Your task to perform on an android device: Go to Google maps Image 0: 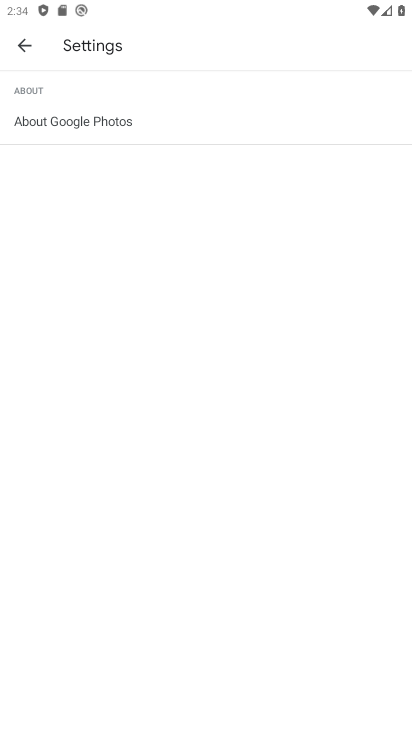
Step 0: press home button
Your task to perform on an android device: Go to Google maps Image 1: 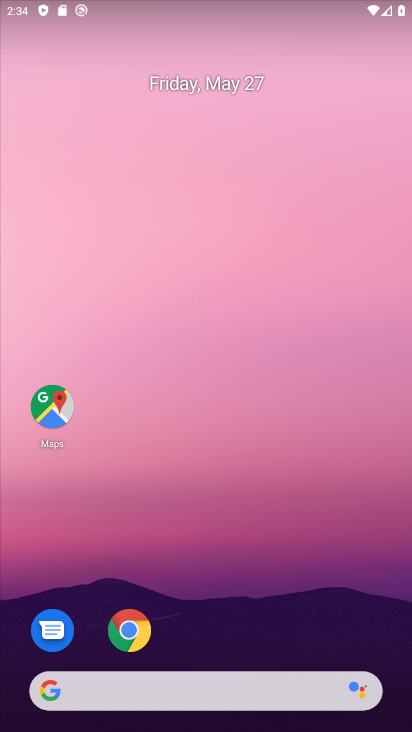
Step 1: click (53, 414)
Your task to perform on an android device: Go to Google maps Image 2: 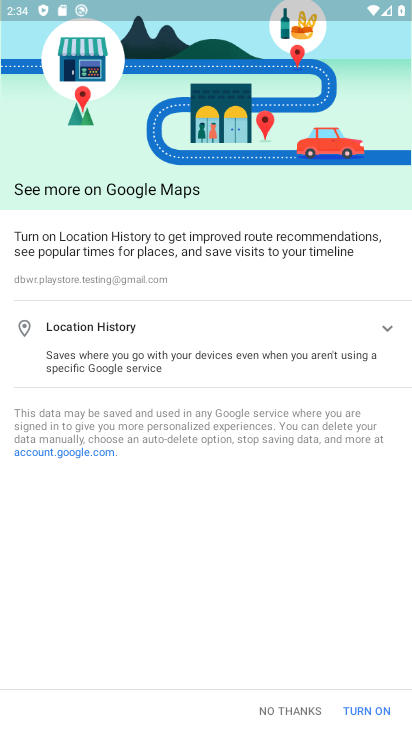
Step 2: press home button
Your task to perform on an android device: Go to Google maps Image 3: 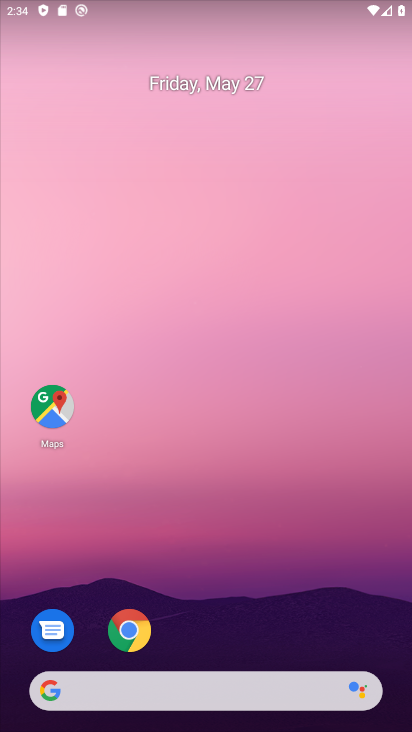
Step 3: click (42, 414)
Your task to perform on an android device: Go to Google maps Image 4: 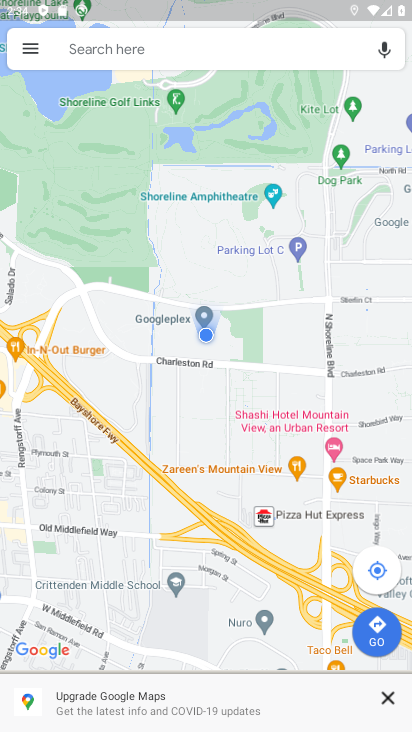
Step 4: task complete